Your task to perform on an android device: turn off location history Image 0: 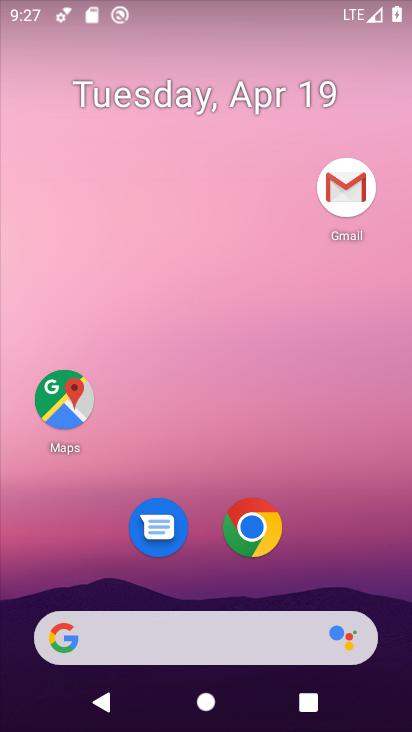
Step 0: drag from (371, 523) to (374, 98)
Your task to perform on an android device: turn off location history Image 1: 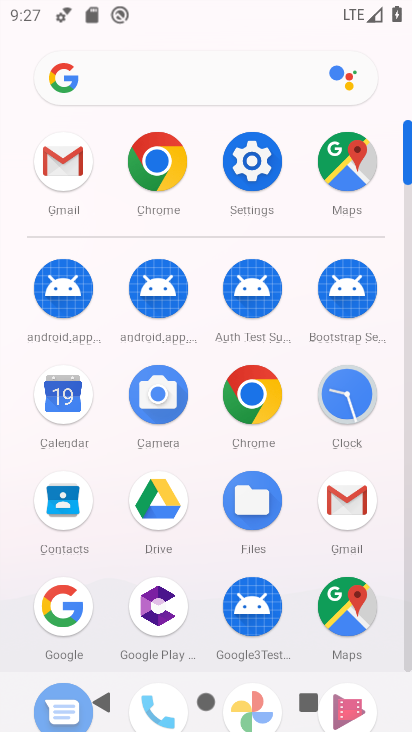
Step 1: click (231, 164)
Your task to perform on an android device: turn off location history Image 2: 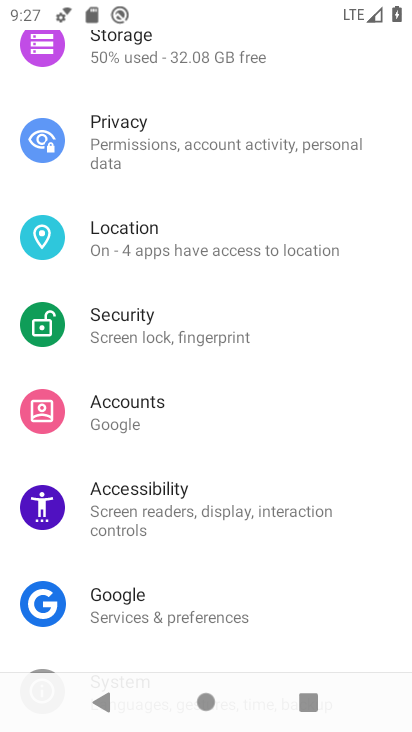
Step 2: click (213, 235)
Your task to perform on an android device: turn off location history Image 3: 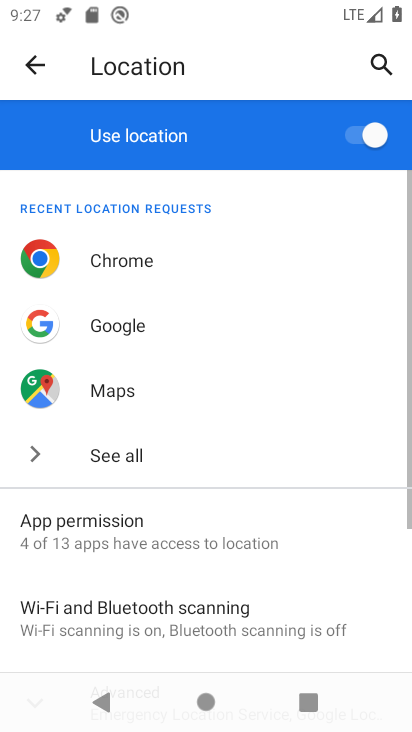
Step 3: drag from (369, 629) to (369, 266)
Your task to perform on an android device: turn off location history Image 4: 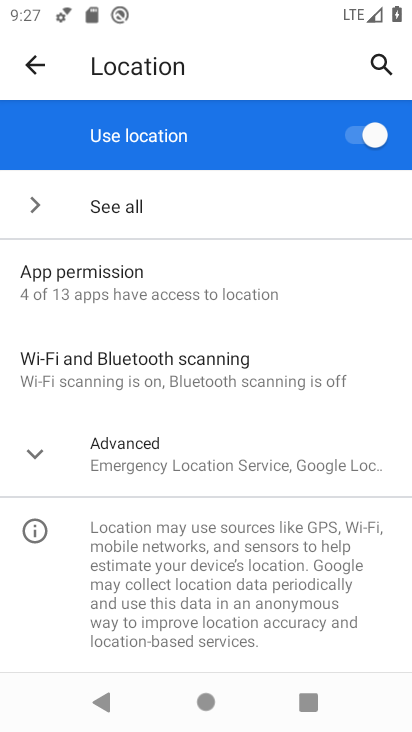
Step 4: click (293, 464)
Your task to perform on an android device: turn off location history Image 5: 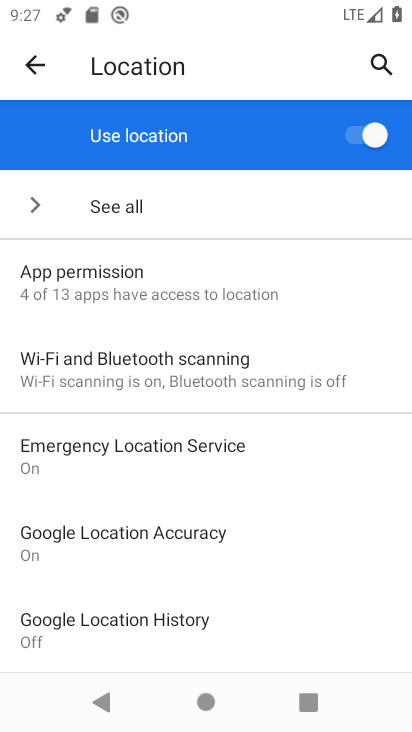
Step 5: task complete